Your task to perform on an android device: change the clock style Image 0: 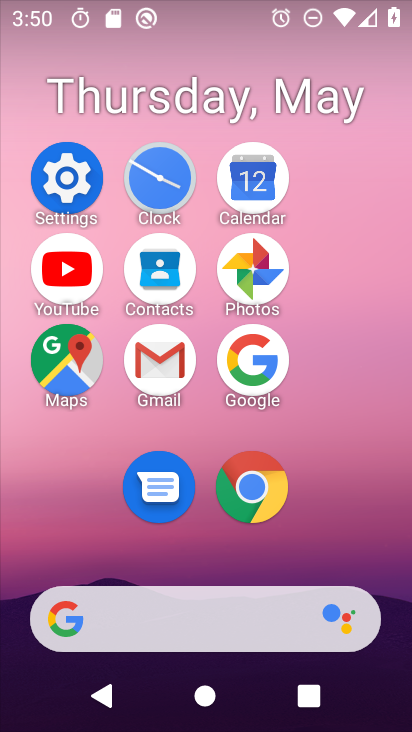
Step 0: click (162, 169)
Your task to perform on an android device: change the clock style Image 1: 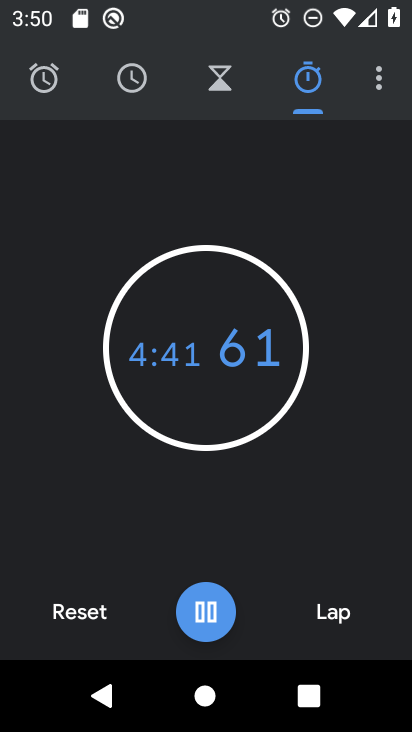
Step 1: click (363, 77)
Your task to perform on an android device: change the clock style Image 2: 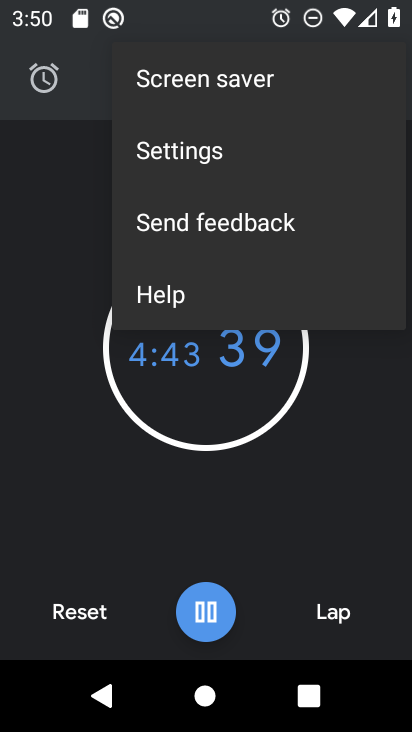
Step 2: click (166, 161)
Your task to perform on an android device: change the clock style Image 3: 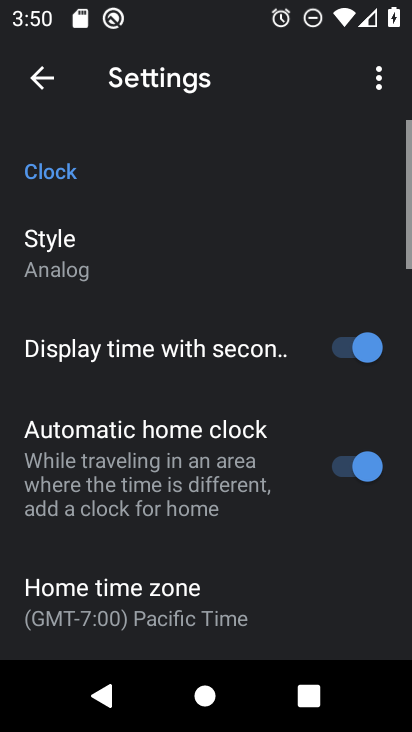
Step 3: click (121, 213)
Your task to perform on an android device: change the clock style Image 4: 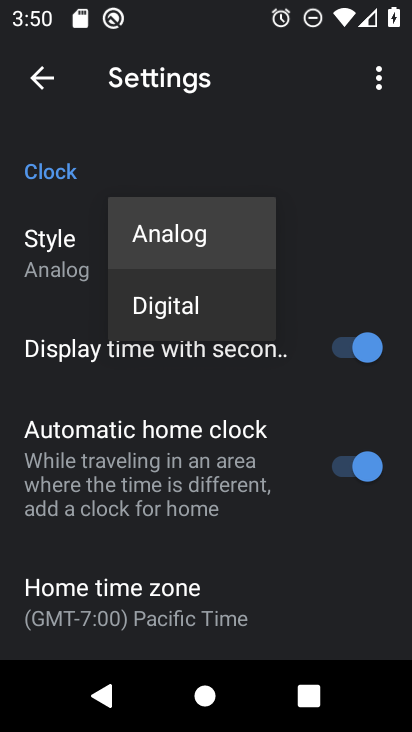
Step 4: click (167, 315)
Your task to perform on an android device: change the clock style Image 5: 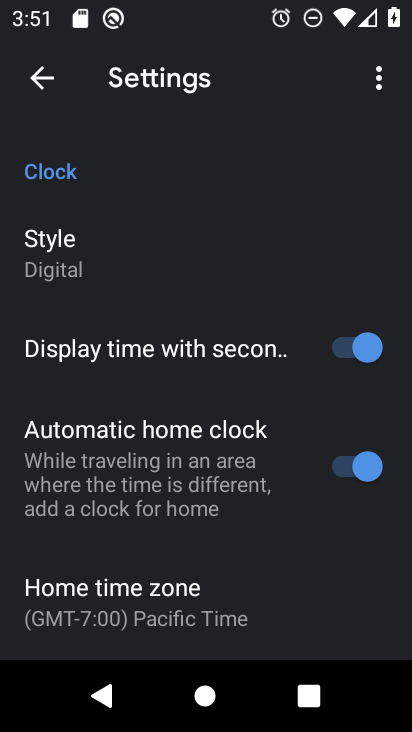
Step 5: task complete